Your task to perform on an android device: turn smart compose on in the gmail app Image 0: 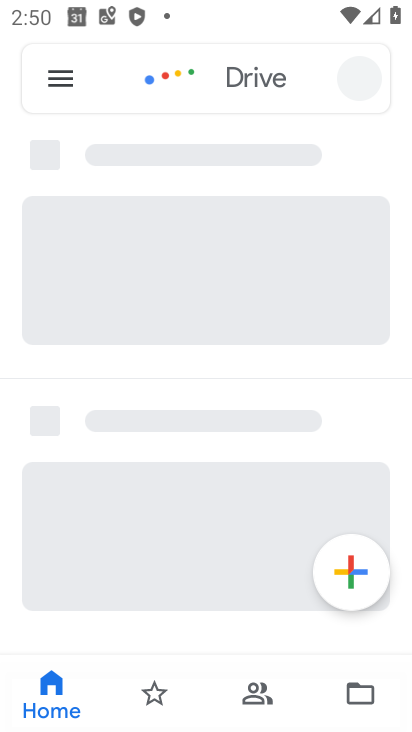
Step 0: press home button
Your task to perform on an android device: turn smart compose on in the gmail app Image 1: 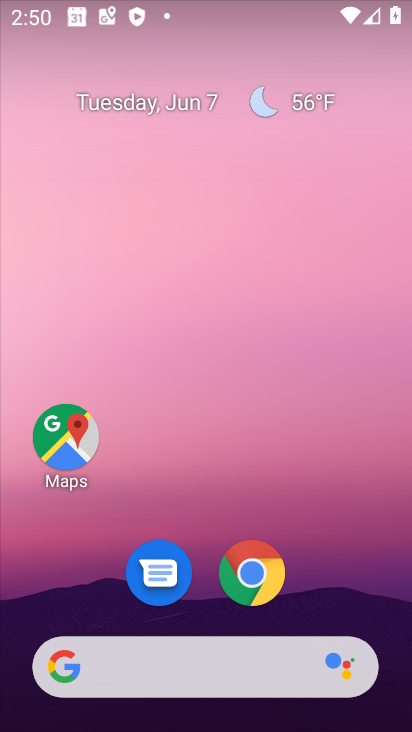
Step 1: drag from (309, 598) to (310, 12)
Your task to perform on an android device: turn smart compose on in the gmail app Image 2: 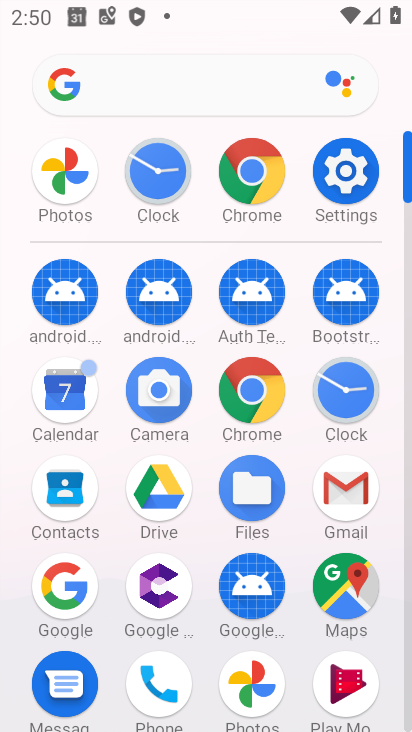
Step 2: click (337, 505)
Your task to perform on an android device: turn smart compose on in the gmail app Image 3: 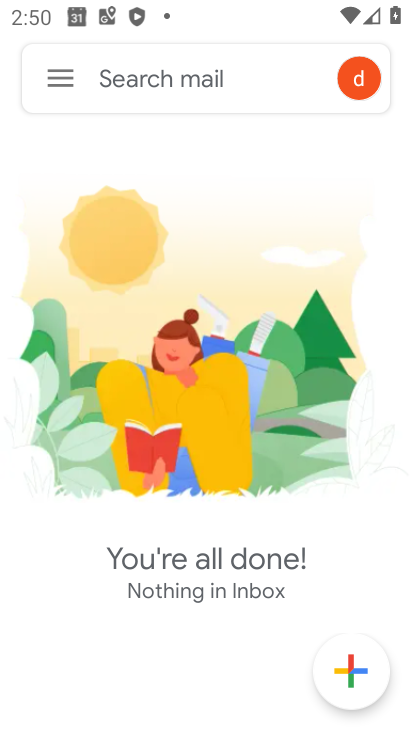
Step 3: click (61, 79)
Your task to perform on an android device: turn smart compose on in the gmail app Image 4: 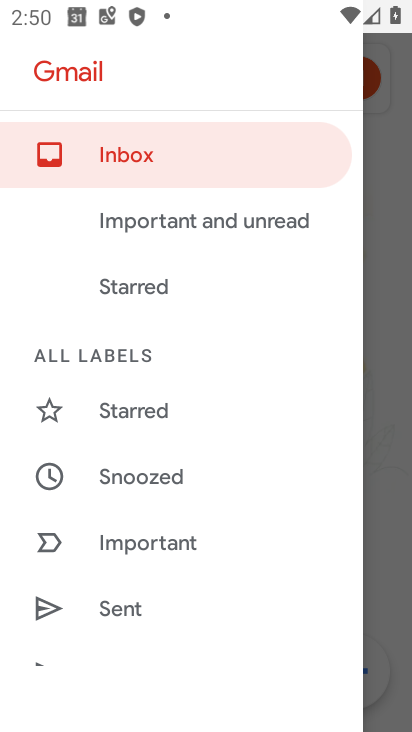
Step 4: drag from (109, 599) to (213, 196)
Your task to perform on an android device: turn smart compose on in the gmail app Image 5: 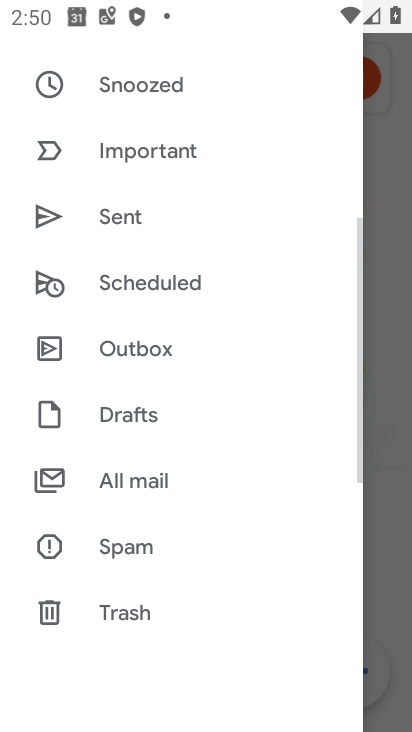
Step 5: drag from (186, 548) to (250, 207)
Your task to perform on an android device: turn smart compose on in the gmail app Image 6: 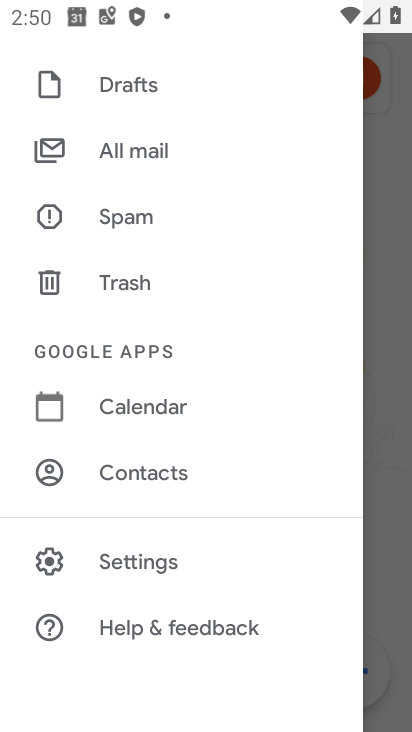
Step 6: click (195, 568)
Your task to perform on an android device: turn smart compose on in the gmail app Image 7: 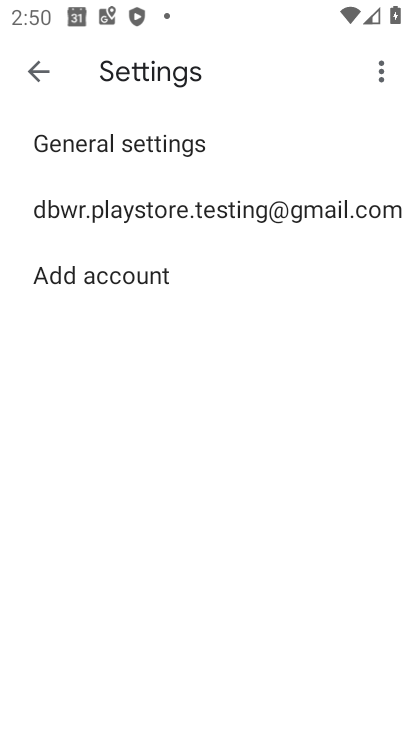
Step 7: click (168, 211)
Your task to perform on an android device: turn smart compose on in the gmail app Image 8: 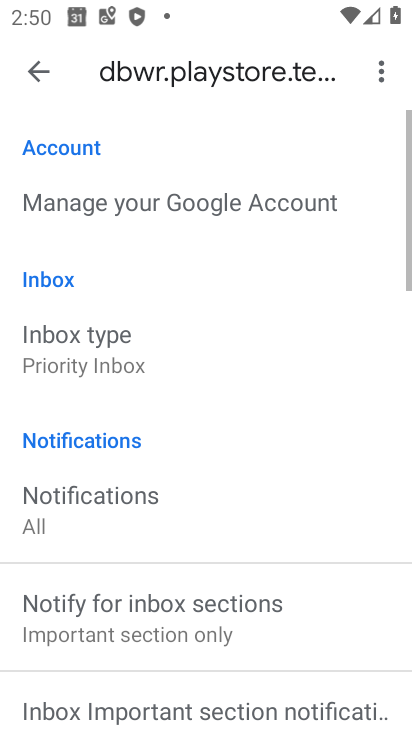
Step 8: task complete